Your task to perform on an android device: open chrome privacy settings Image 0: 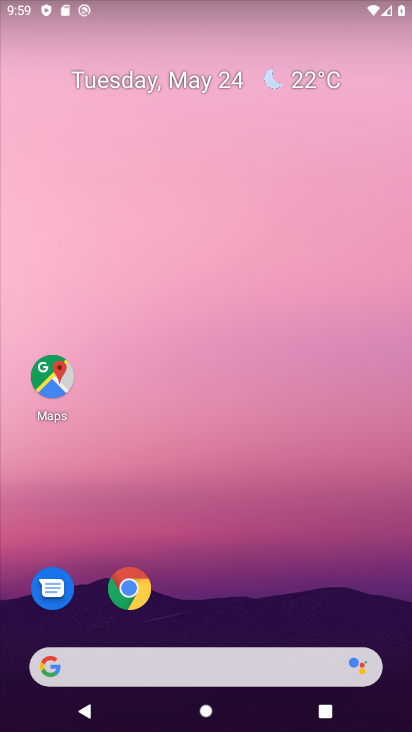
Step 0: click (138, 594)
Your task to perform on an android device: open chrome privacy settings Image 1: 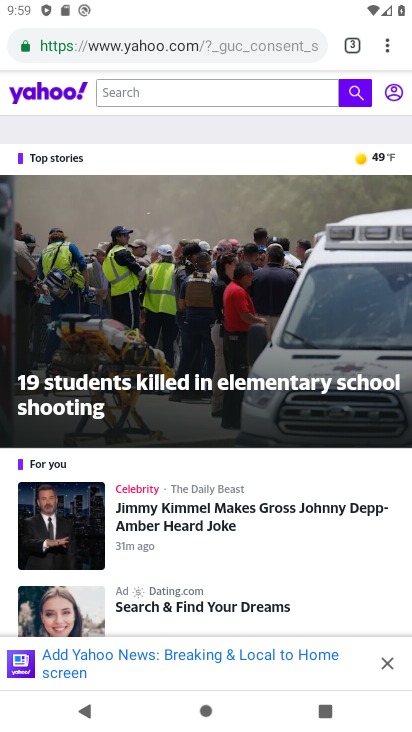
Step 1: click (394, 42)
Your task to perform on an android device: open chrome privacy settings Image 2: 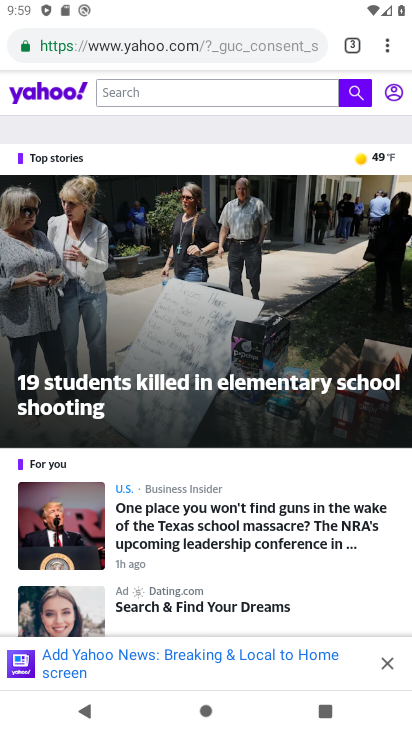
Step 2: click (394, 42)
Your task to perform on an android device: open chrome privacy settings Image 3: 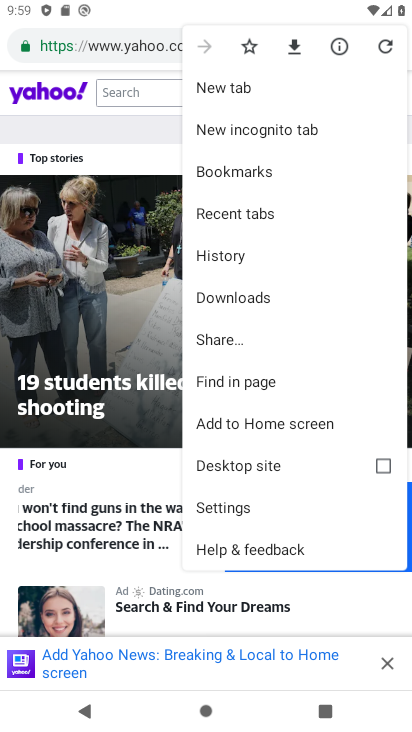
Step 3: click (312, 486)
Your task to perform on an android device: open chrome privacy settings Image 4: 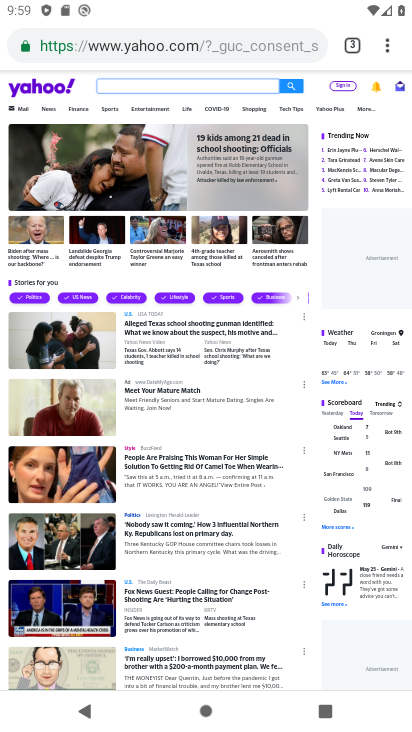
Step 4: click (394, 47)
Your task to perform on an android device: open chrome privacy settings Image 5: 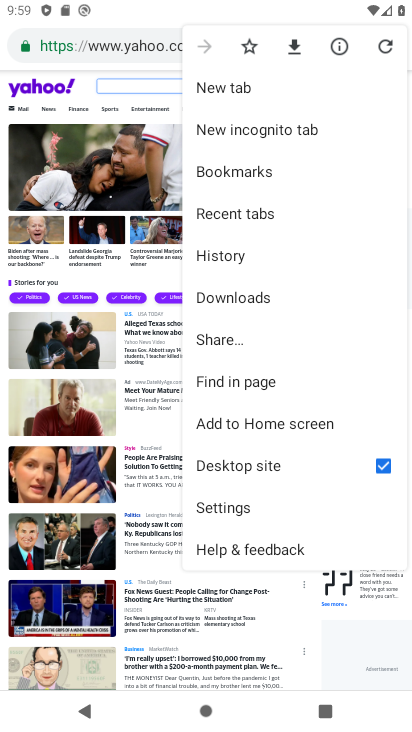
Step 5: click (228, 508)
Your task to perform on an android device: open chrome privacy settings Image 6: 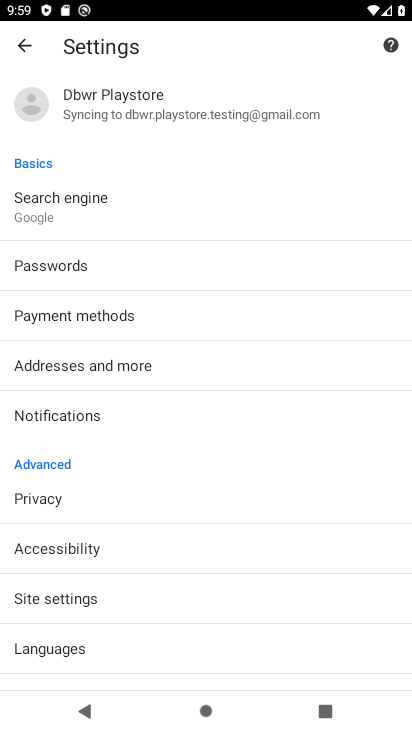
Step 6: click (51, 504)
Your task to perform on an android device: open chrome privacy settings Image 7: 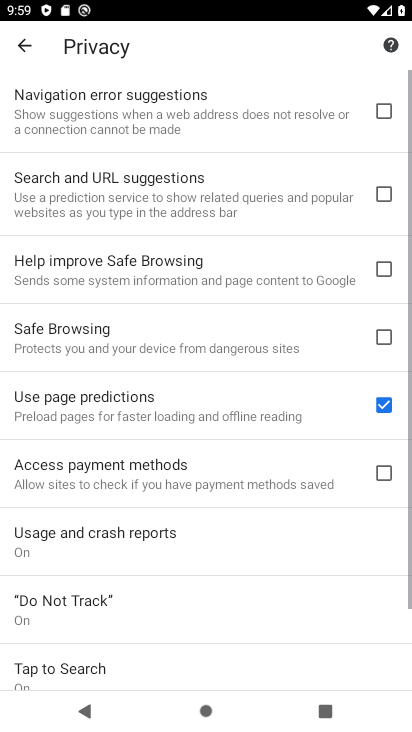
Step 7: task complete